Your task to perform on an android device: Open the map Image 0: 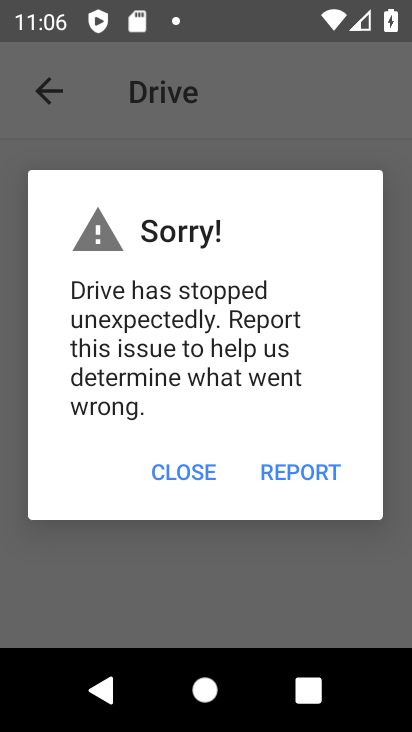
Step 0: press home button
Your task to perform on an android device: Open the map Image 1: 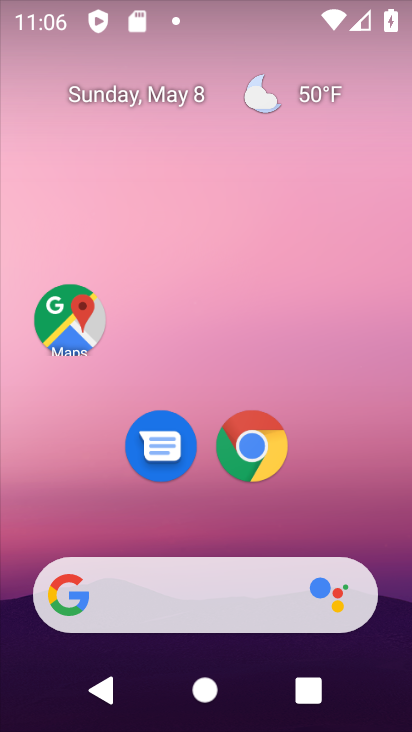
Step 1: drag from (265, 524) to (227, 122)
Your task to perform on an android device: Open the map Image 2: 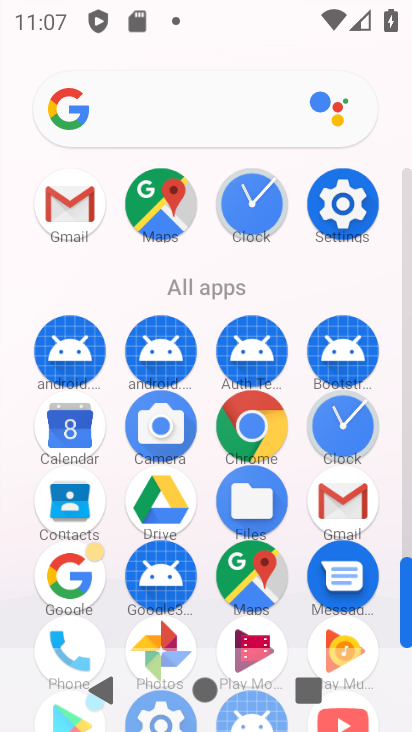
Step 2: click (148, 215)
Your task to perform on an android device: Open the map Image 3: 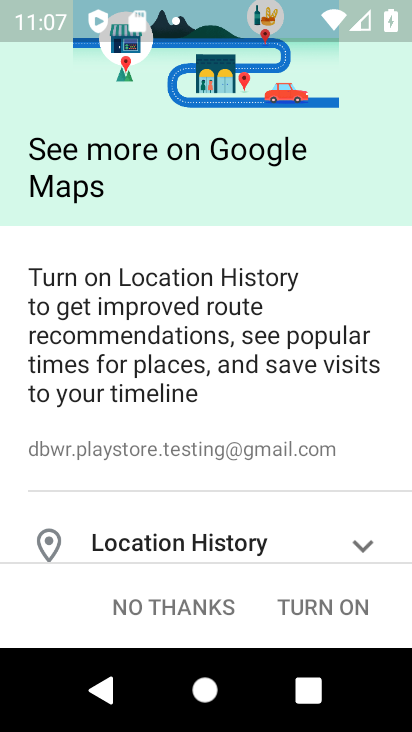
Step 3: click (217, 604)
Your task to perform on an android device: Open the map Image 4: 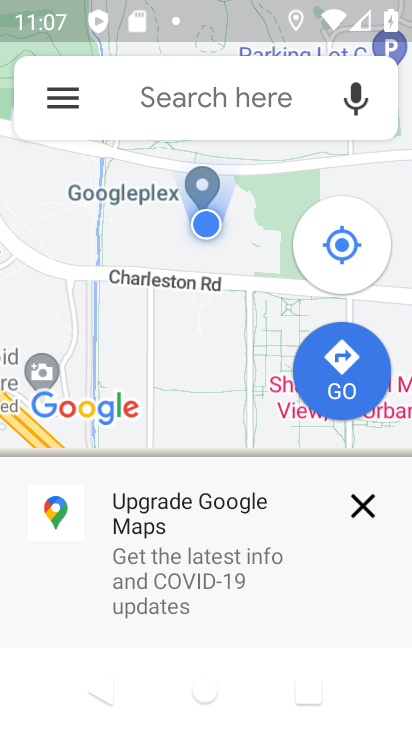
Step 4: task complete